Your task to perform on an android device: Open the phone app and click the voicemail tab. Image 0: 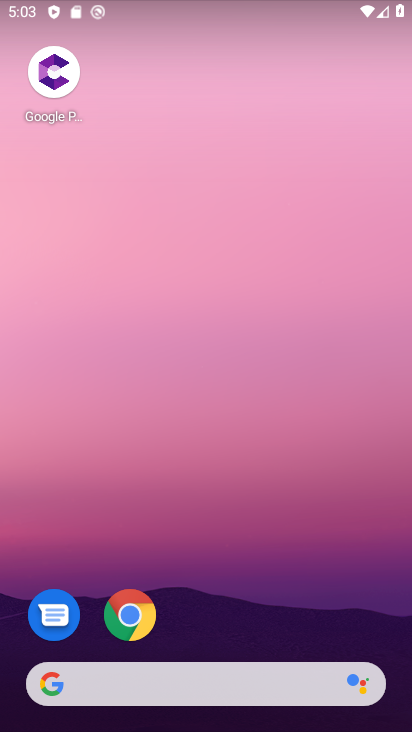
Step 0: drag from (310, 587) to (222, 25)
Your task to perform on an android device: Open the phone app and click the voicemail tab. Image 1: 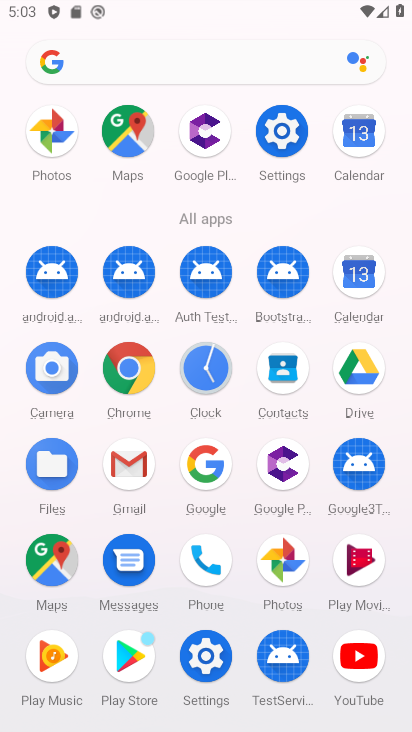
Step 1: click (203, 554)
Your task to perform on an android device: Open the phone app and click the voicemail tab. Image 2: 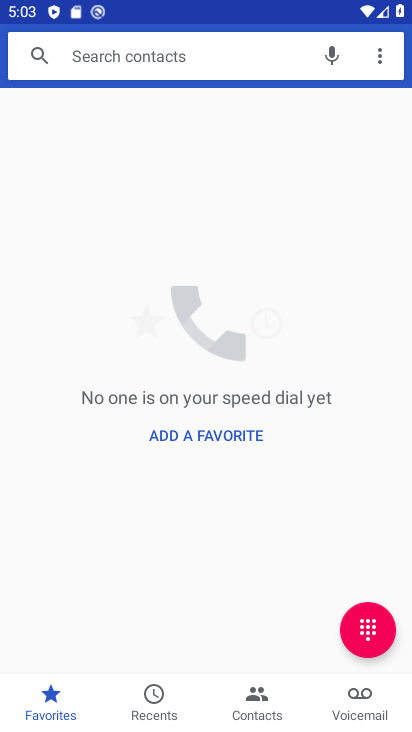
Step 2: click (348, 705)
Your task to perform on an android device: Open the phone app and click the voicemail tab. Image 3: 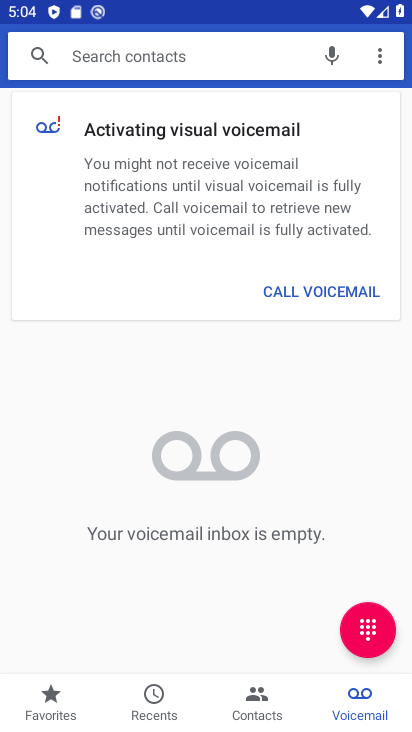
Step 3: task complete